Your task to perform on an android device: Open battery settings Image 0: 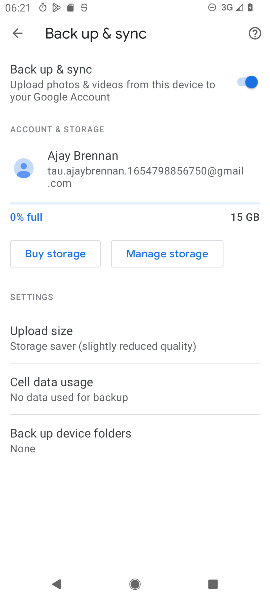
Step 0: press home button
Your task to perform on an android device: Open battery settings Image 1: 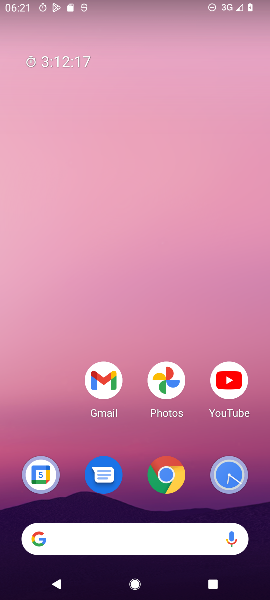
Step 1: drag from (58, 427) to (54, 197)
Your task to perform on an android device: Open battery settings Image 2: 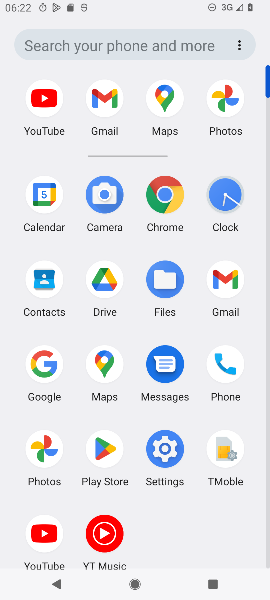
Step 2: click (164, 451)
Your task to perform on an android device: Open battery settings Image 3: 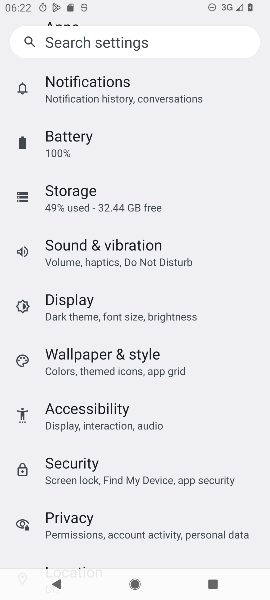
Step 3: drag from (202, 396) to (207, 335)
Your task to perform on an android device: Open battery settings Image 4: 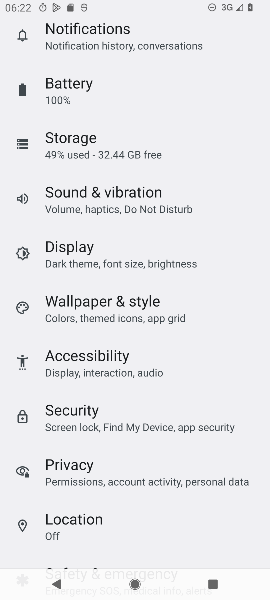
Step 4: drag from (230, 448) to (230, 358)
Your task to perform on an android device: Open battery settings Image 5: 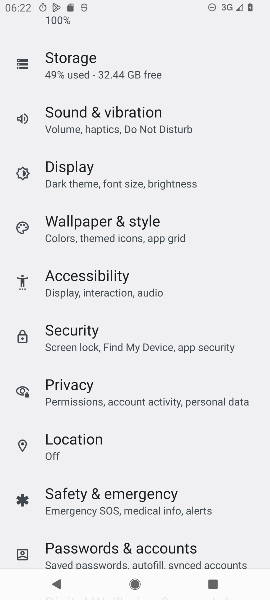
Step 5: drag from (214, 421) to (214, 344)
Your task to perform on an android device: Open battery settings Image 6: 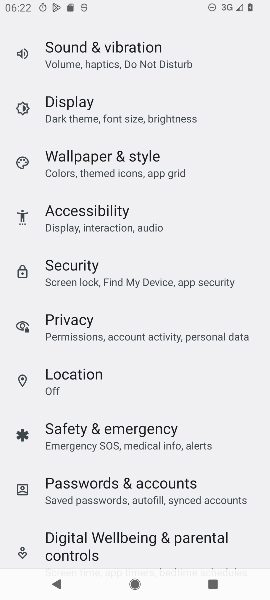
Step 6: drag from (231, 431) to (230, 349)
Your task to perform on an android device: Open battery settings Image 7: 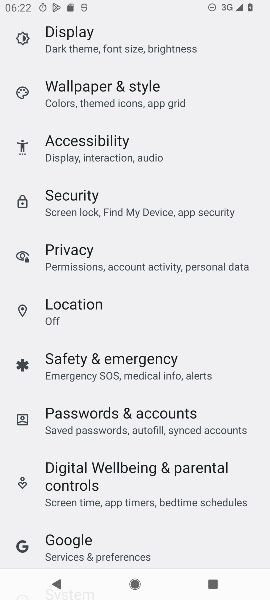
Step 7: drag from (240, 450) to (246, 360)
Your task to perform on an android device: Open battery settings Image 8: 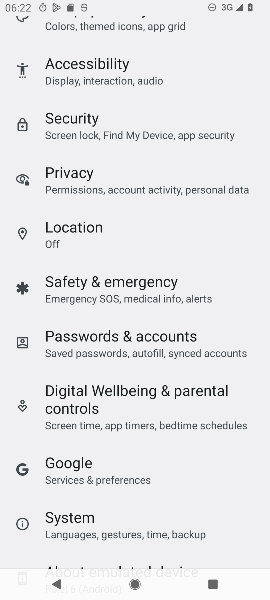
Step 8: drag from (247, 466) to (247, 382)
Your task to perform on an android device: Open battery settings Image 9: 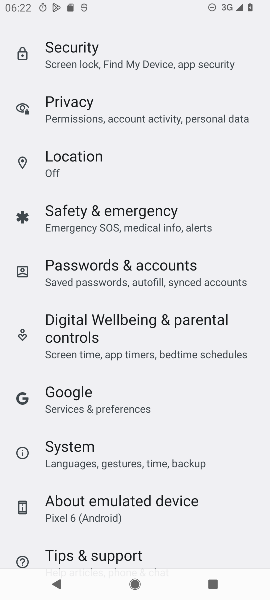
Step 9: drag from (241, 475) to (241, 392)
Your task to perform on an android device: Open battery settings Image 10: 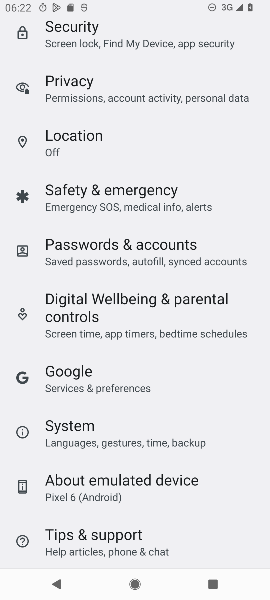
Step 10: drag from (237, 345) to (238, 401)
Your task to perform on an android device: Open battery settings Image 11: 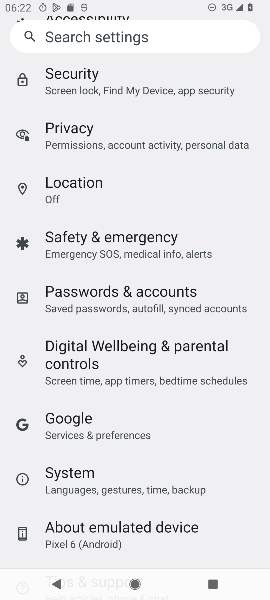
Step 11: drag from (240, 238) to (246, 307)
Your task to perform on an android device: Open battery settings Image 12: 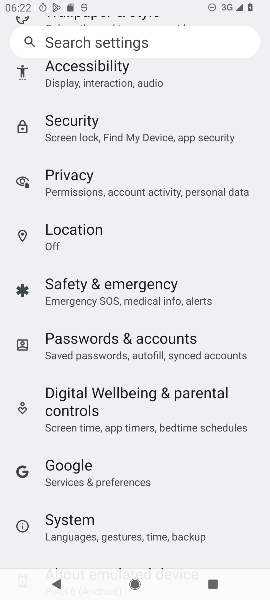
Step 12: drag from (244, 234) to (243, 305)
Your task to perform on an android device: Open battery settings Image 13: 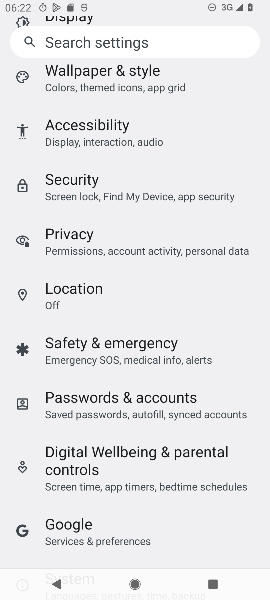
Step 13: drag from (248, 176) to (248, 271)
Your task to perform on an android device: Open battery settings Image 14: 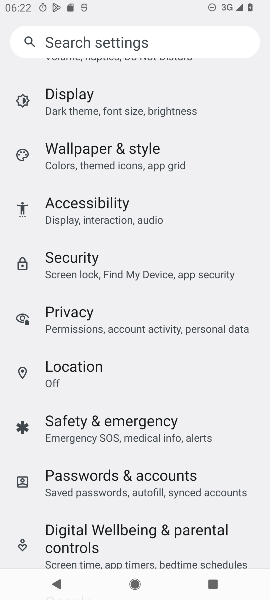
Step 14: drag from (234, 162) to (233, 246)
Your task to perform on an android device: Open battery settings Image 15: 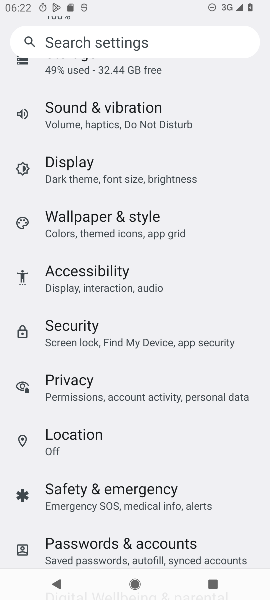
Step 15: drag from (235, 143) to (241, 223)
Your task to perform on an android device: Open battery settings Image 16: 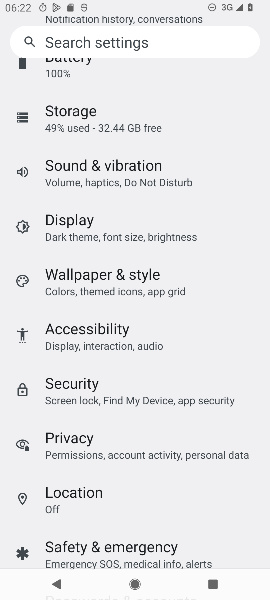
Step 16: drag from (232, 134) to (229, 220)
Your task to perform on an android device: Open battery settings Image 17: 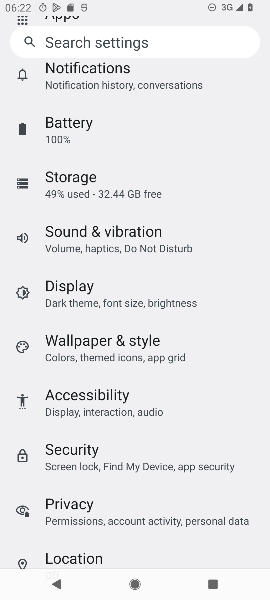
Step 17: drag from (232, 117) to (231, 254)
Your task to perform on an android device: Open battery settings Image 18: 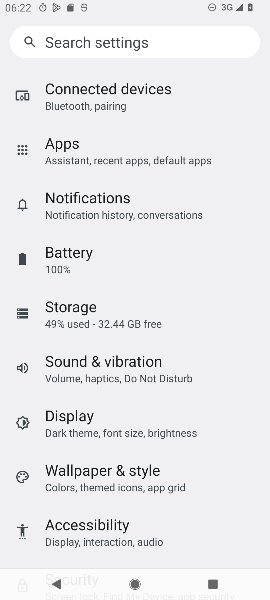
Step 18: drag from (228, 103) to (224, 287)
Your task to perform on an android device: Open battery settings Image 19: 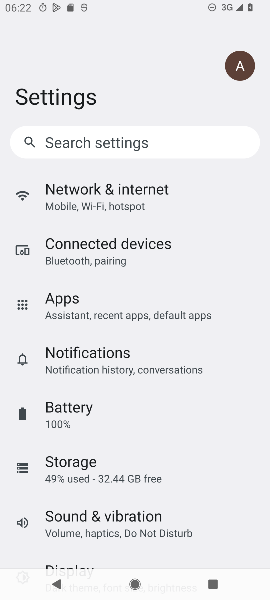
Step 19: click (78, 403)
Your task to perform on an android device: Open battery settings Image 20: 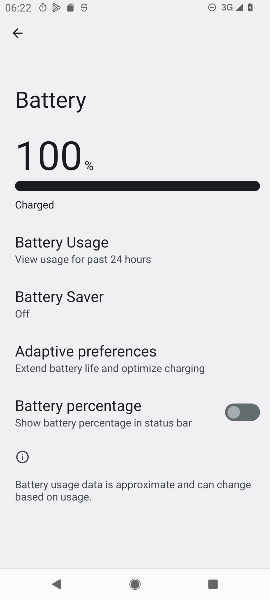
Step 20: task complete